Your task to perform on an android device: Go to eBay Image 0: 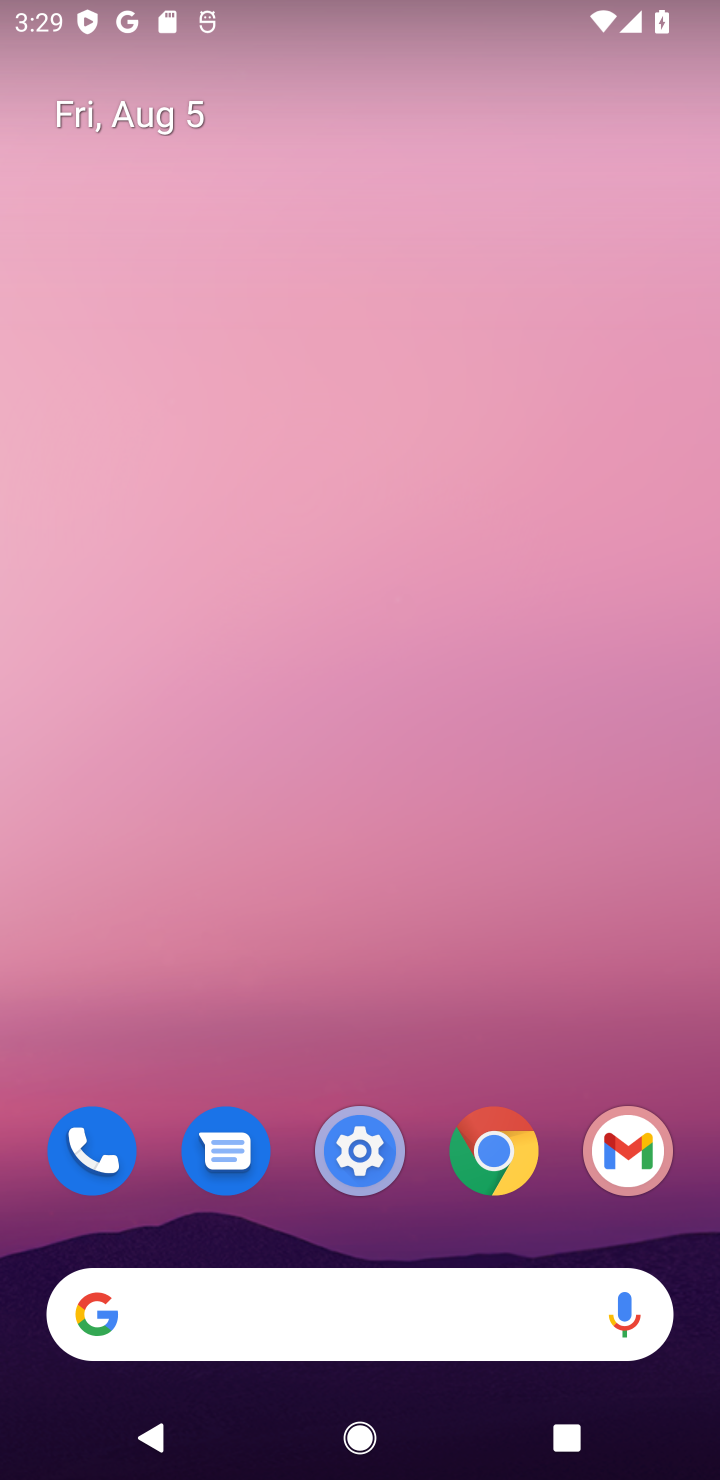
Step 0: click (483, 1145)
Your task to perform on an android device: Go to eBay Image 1: 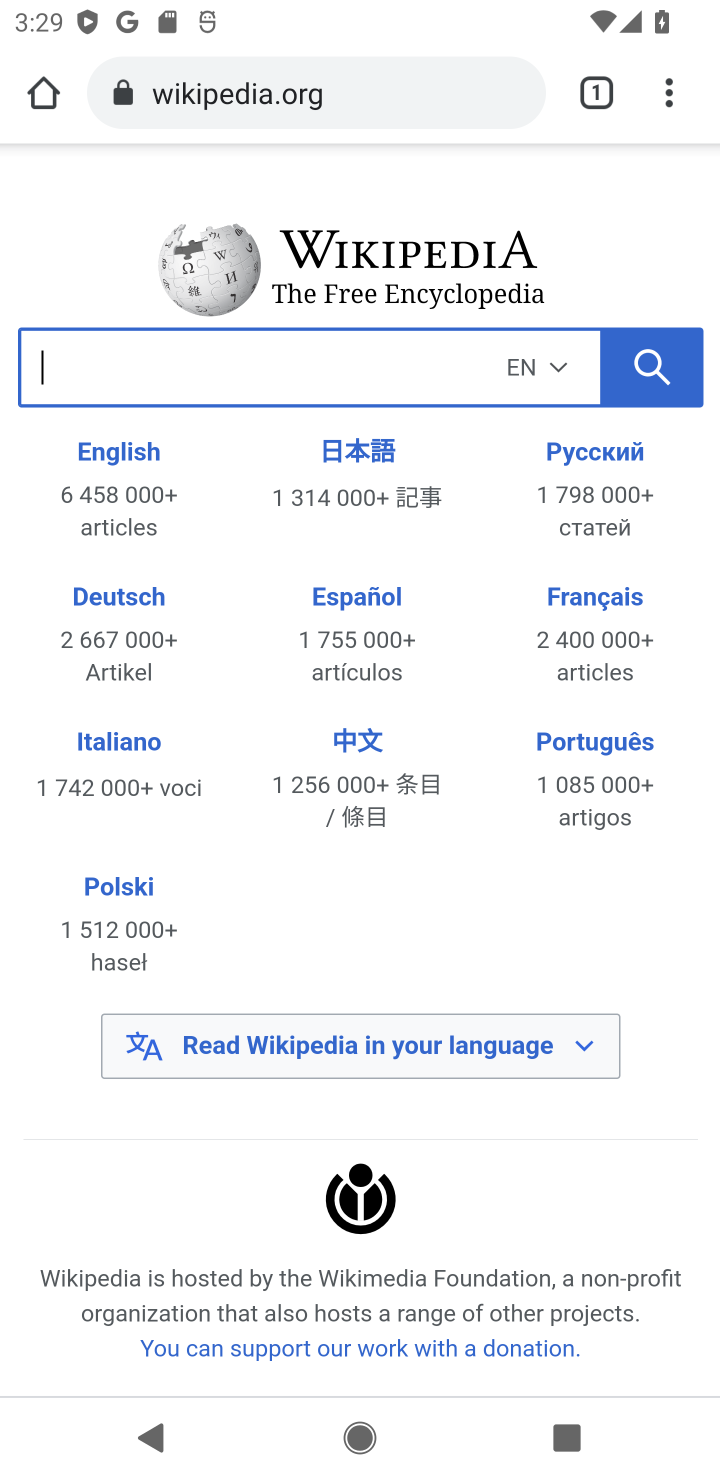
Step 1: click (236, 87)
Your task to perform on an android device: Go to eBay Image 2: 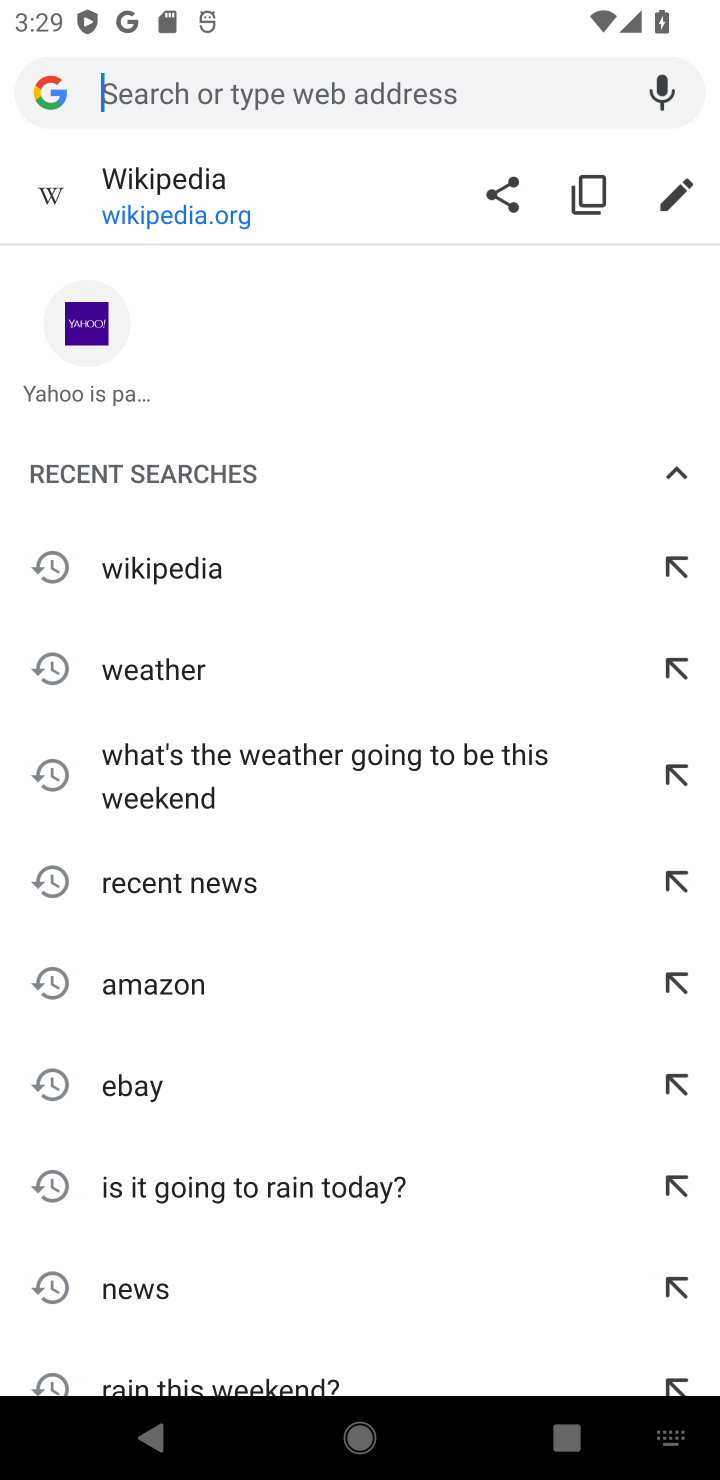
Step 2: type "ebay"
Your task to perform on an android device: Go to eBay Image 3: 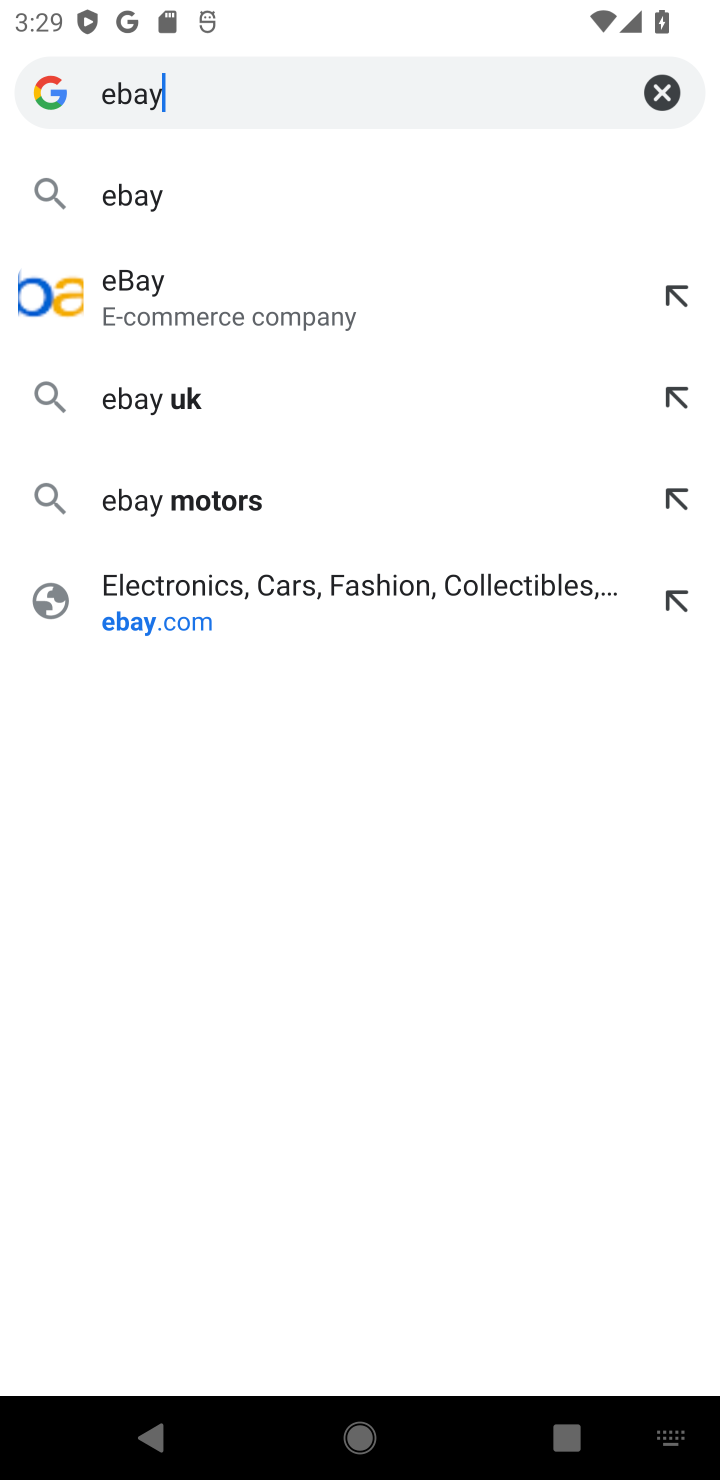
Step 3: click (276, 292)
Your task to perform on an android device: Go to eBay Image 4: 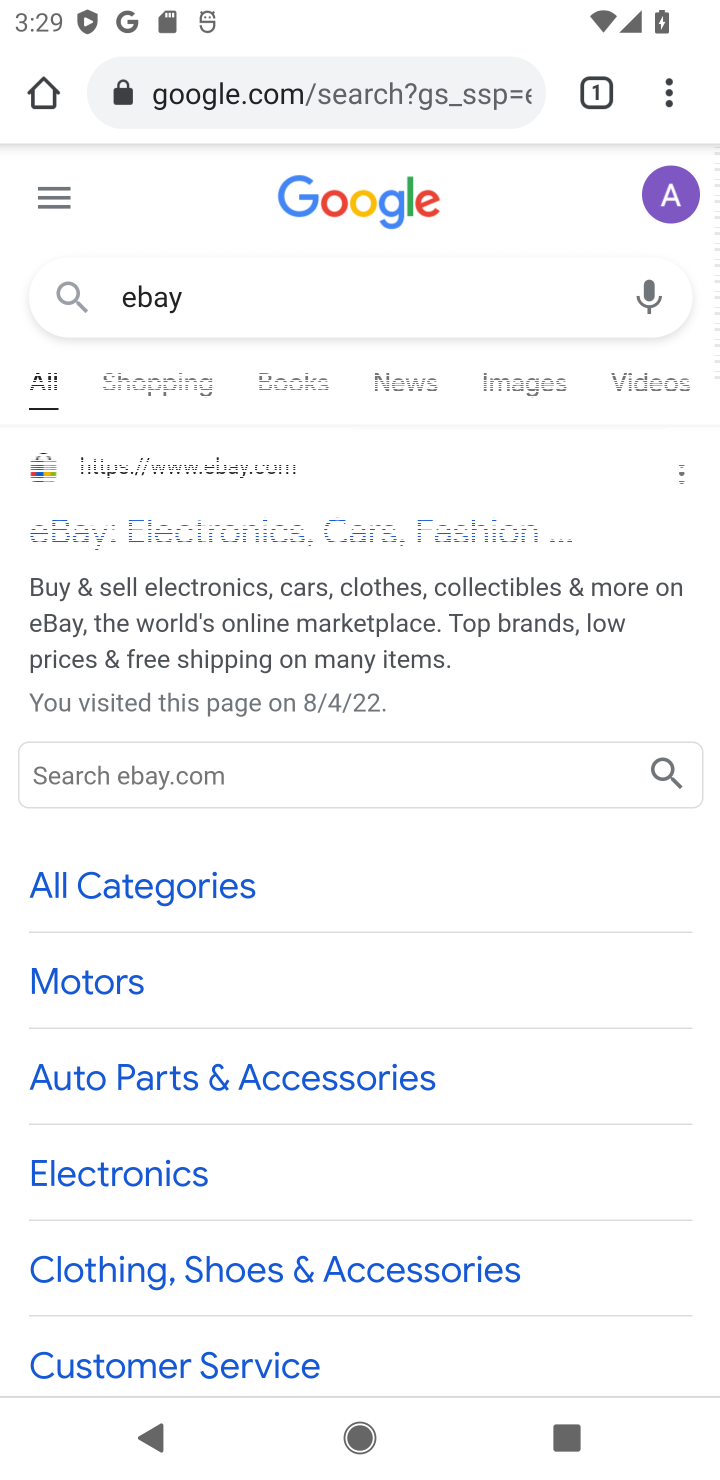
Step 4: click (198, 552)
Your task to perform on an android device: Go to eBay Image 5: 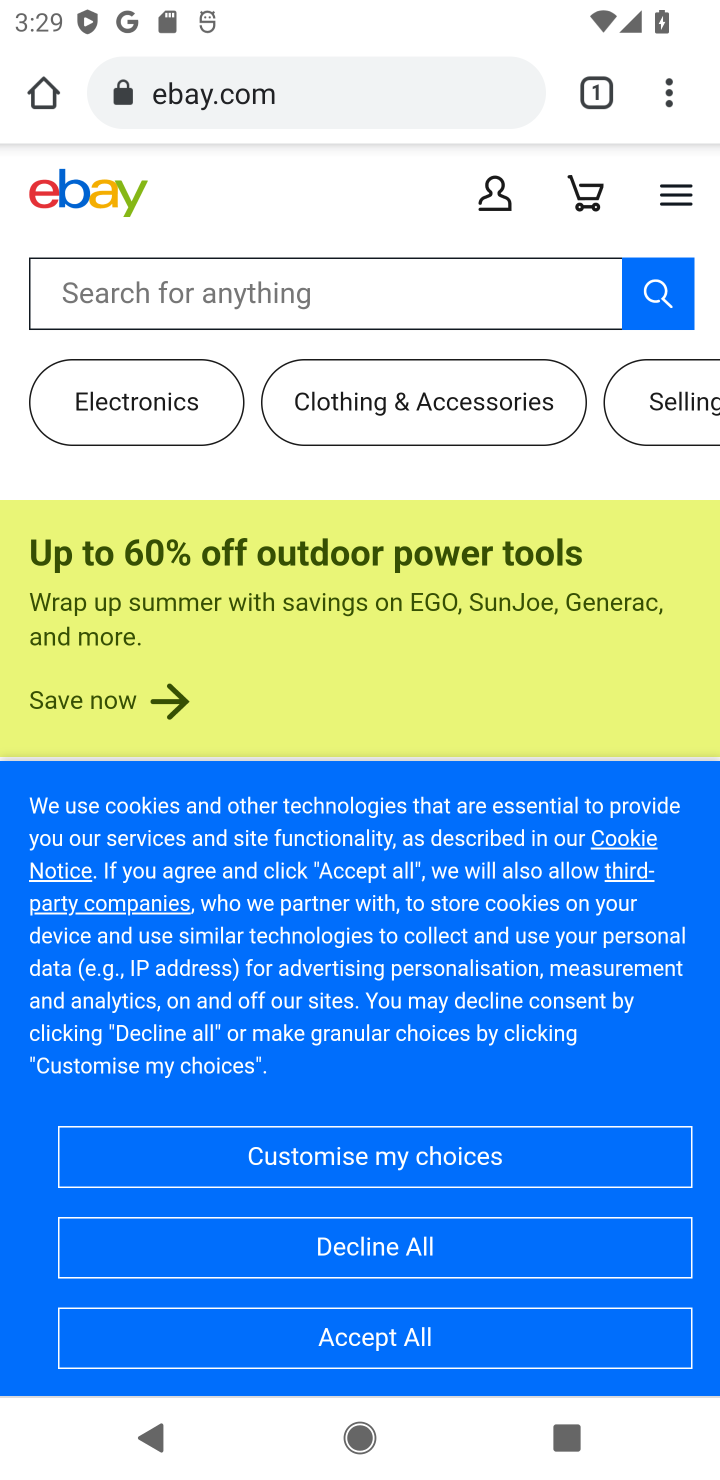
Step 5: task complete